Your task to perform on an android device: toggle wifi Image 0: 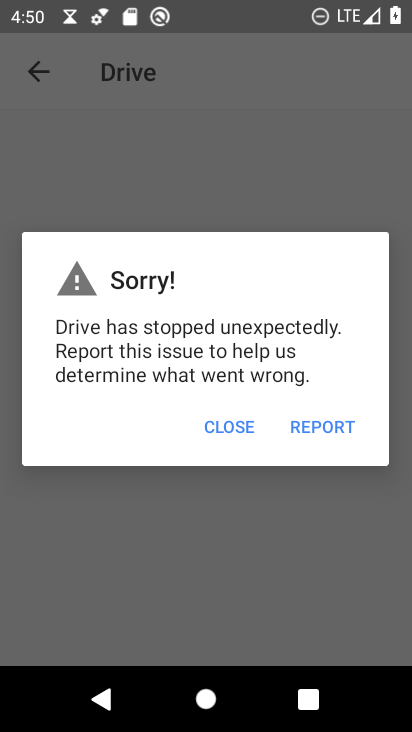
Step 0: press home button
Your task to perform on an android device: toggle wifi Image 1: 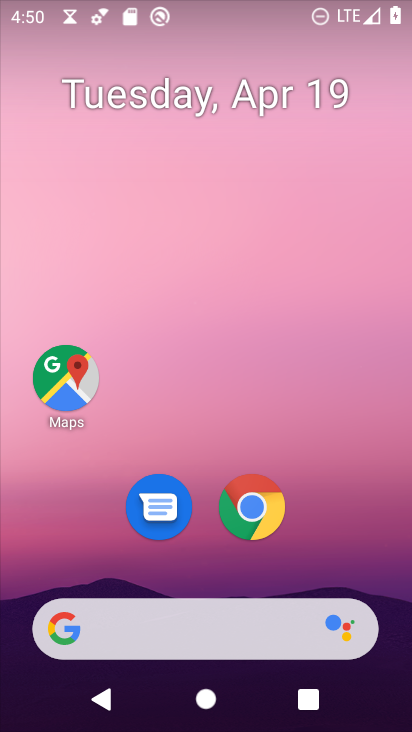
Step 1: drag from (326, 558) to (345, 125)
Your task to perform on an android device: toggle wifi Image 2: 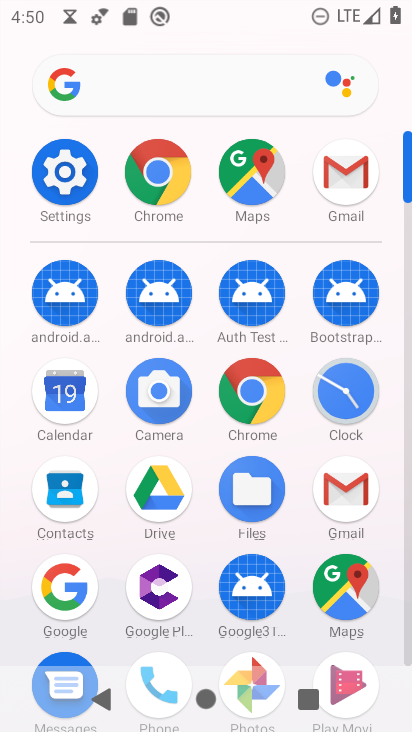
Step 2: click (67, 180)
Your task to perform on an android device: toggle wifi Image 3: 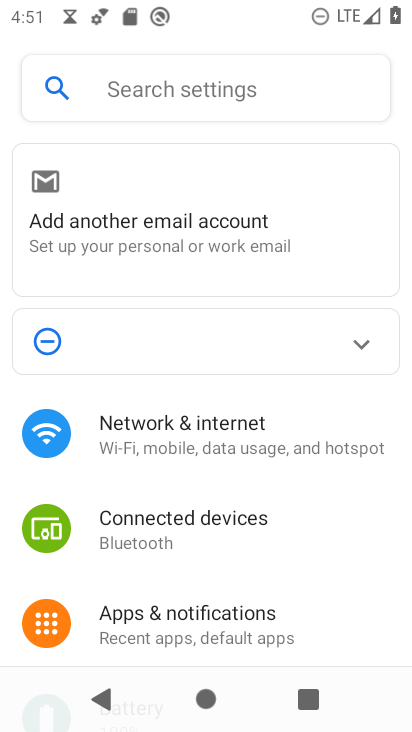
Step 3: click (183, 452)
Your task to perform on an android device: toggle wifi Image 4: 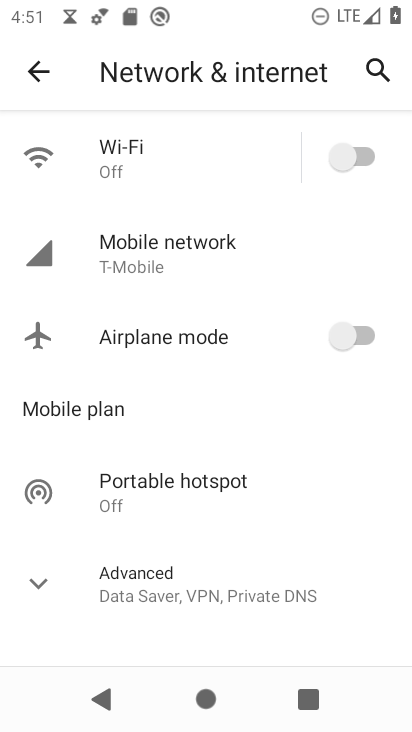
Step 4: click (345, 156)
Your task to perform on an android device: toggle wifi Image 5: 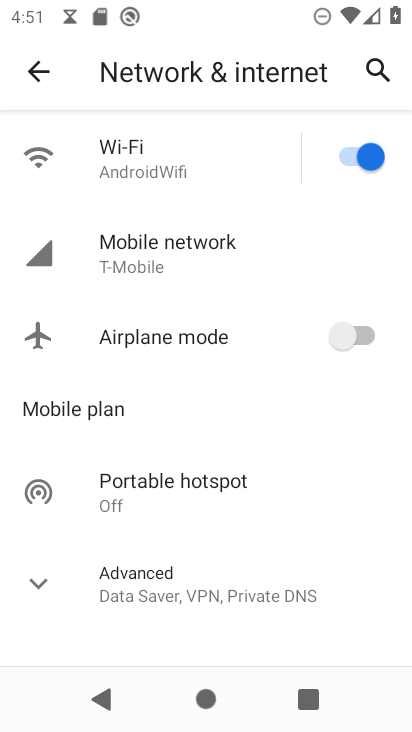
Step 5: task complete